Your task to perform on an android device: change alarm snooze length Image 0: 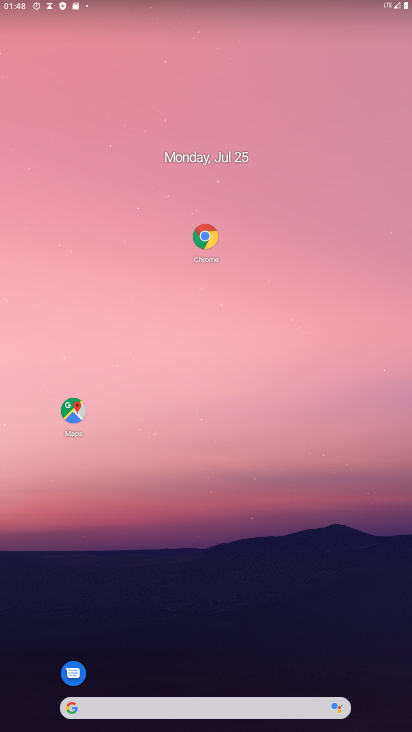
Step 0: drag from (258, 695) to (222, 2)
Your task to perform on an android device: change alarm snooze length Image 1: 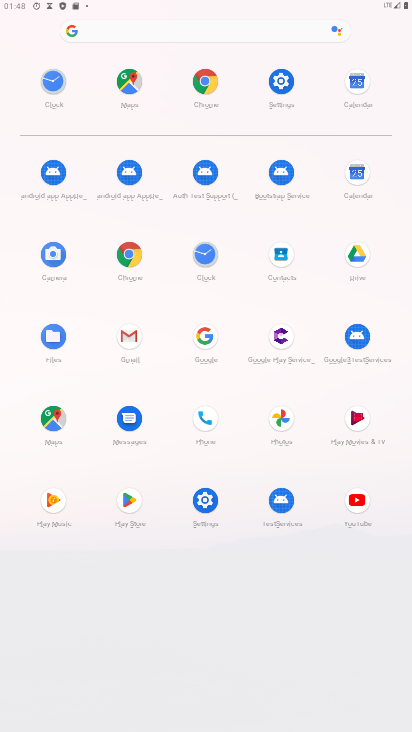
Step 1: click (204, 264)
Your task to perform on an android device: change alarm snooze length Image 2: 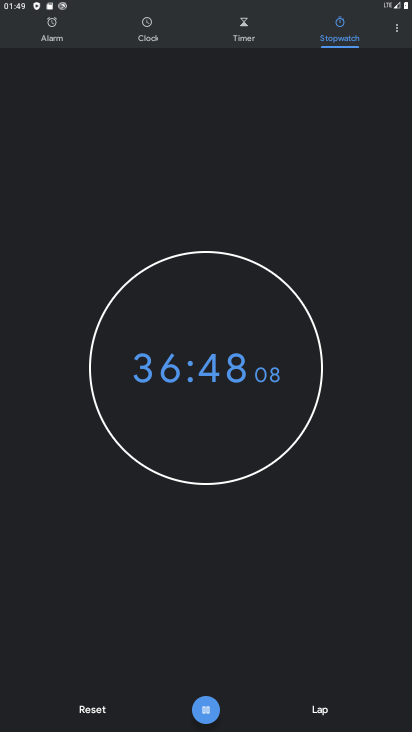
Step 2: click (391, 17)
Your task to perform on an android device: change alarm snooze length Image 3: 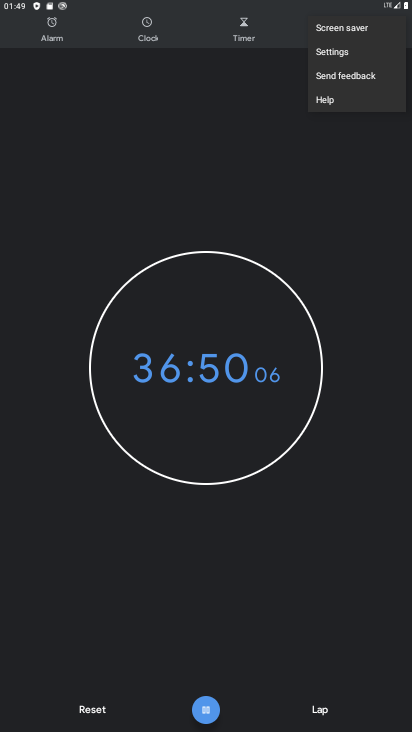
Step 3: click (347, 55)
Your task to perform on an android device: change alarm snooze length Image 4: 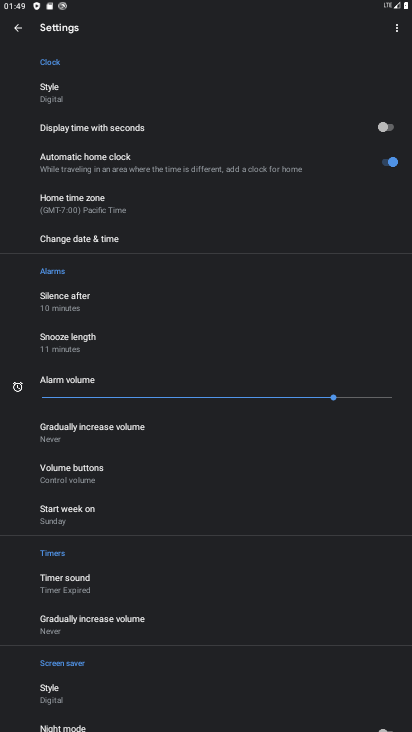
Step 4: click (111, 350)
Your task to perform on an android device: change alarm snooze length Image 5: 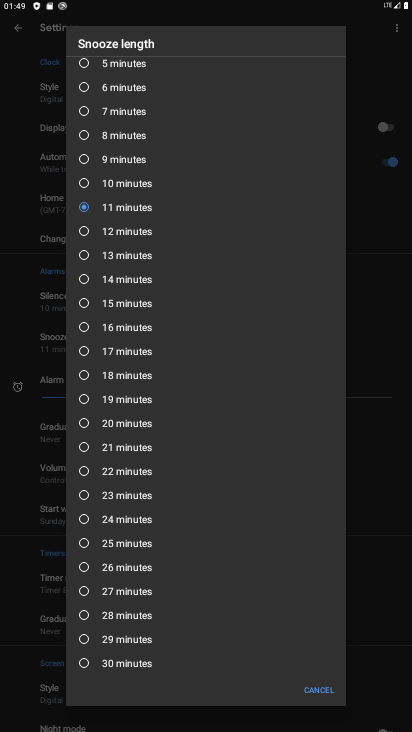
Step 5: click (83, 186)
Your task to perform on an android device: change alarm snooze length Image 6: 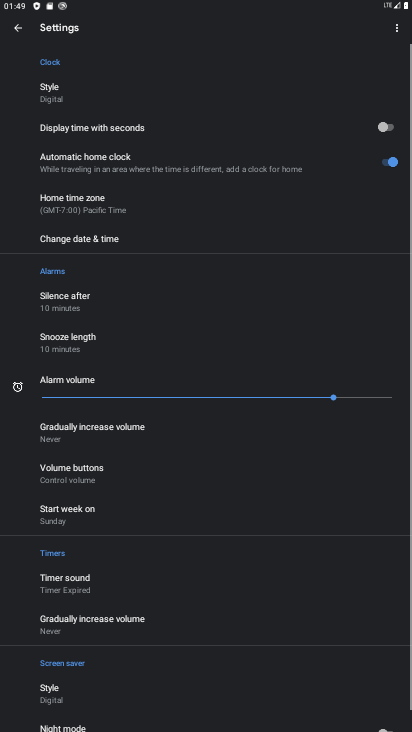
Step 6: task complete